Your task to perform on an android device: Open Wikipedia Image 0: 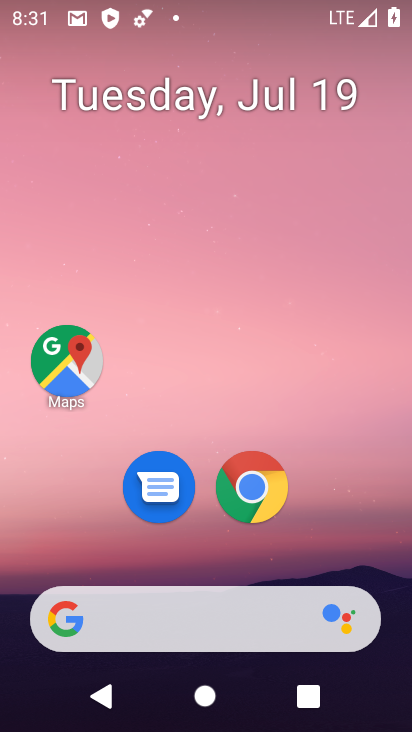
Step 0: click (247, 502)
Your task to perform on an android device: Open Wikipedia Image 1: 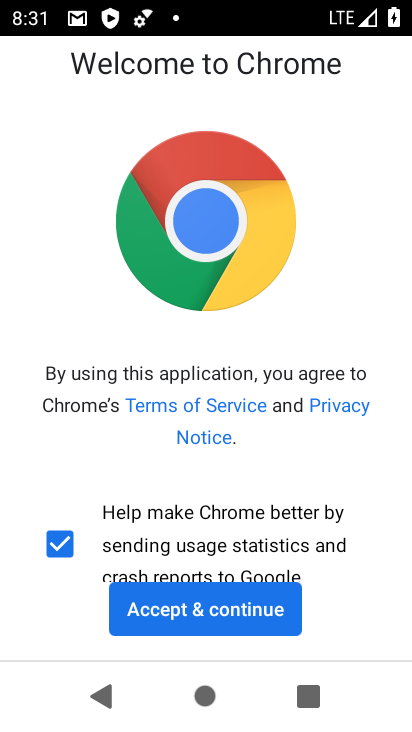
Step 1: click (184, 597)
Your task to perform on an android device: Open Wikipedia Image 2: 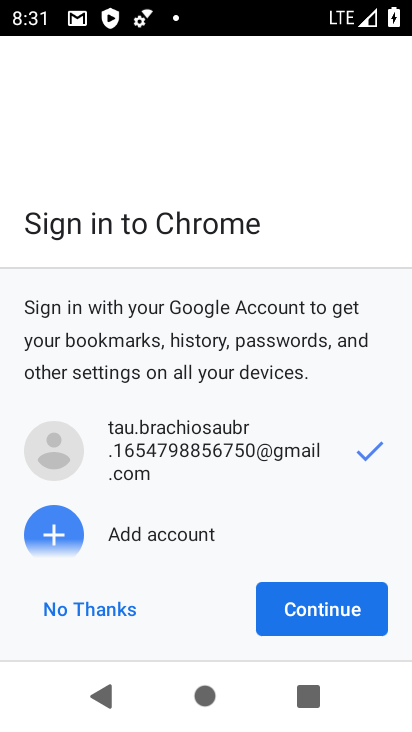
Step 2: click (316, 618)
Your task to perform on an android device: Open Wikipedia Image 3: 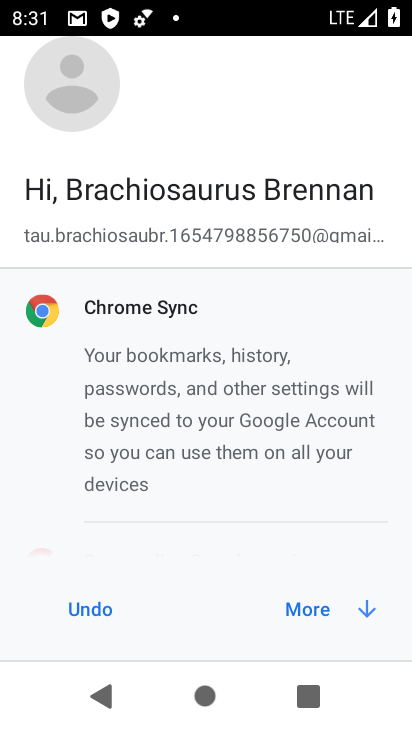
Step 3: click (313, 605)
Your task to perform on an android device: Open Wikipedia Image 4: 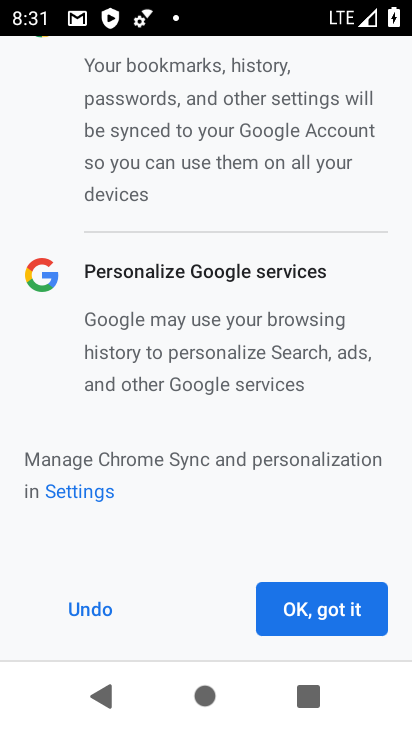
Step 4: click (335, 614)
Your task to perform on an android device: Open Wikipedia Image 5: 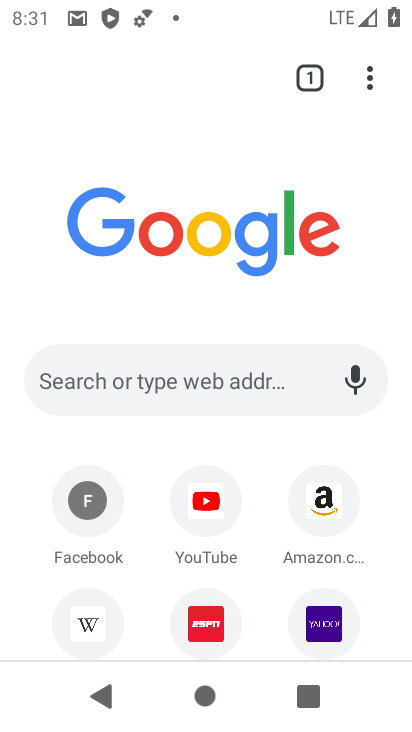
Step 5: click (82, 629)
Your task to perform on an android device: Open Wikipedia Image 6: 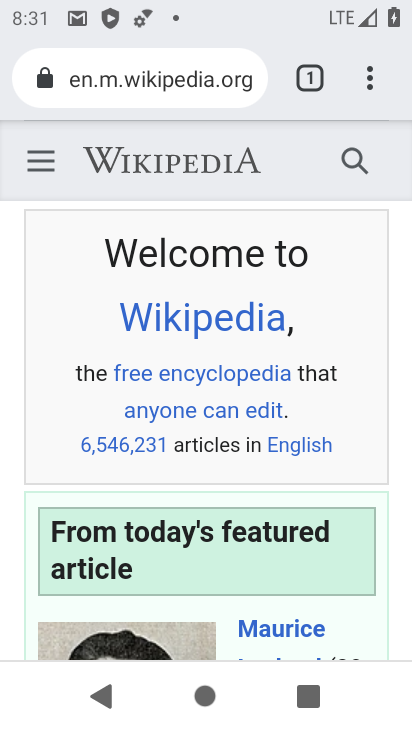
Step 6: task complete